Your task to perform on an android device: Add corsair k70 to the cart on amazon.com Image 0: 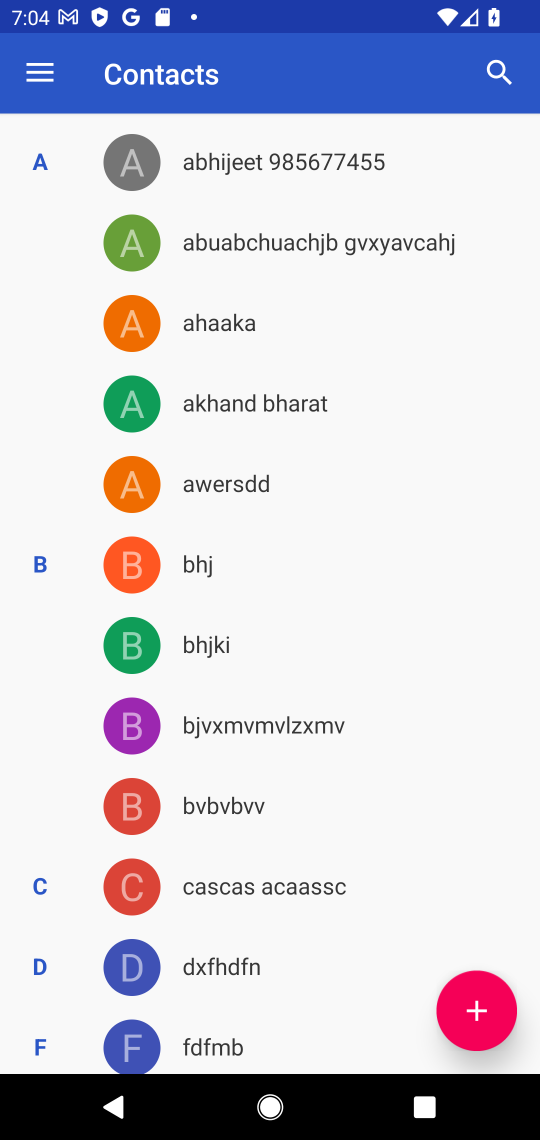
Step 0: press home button
Your task to perform on an android device: Add corsair k70 to the cart on amazon.com Image 1: 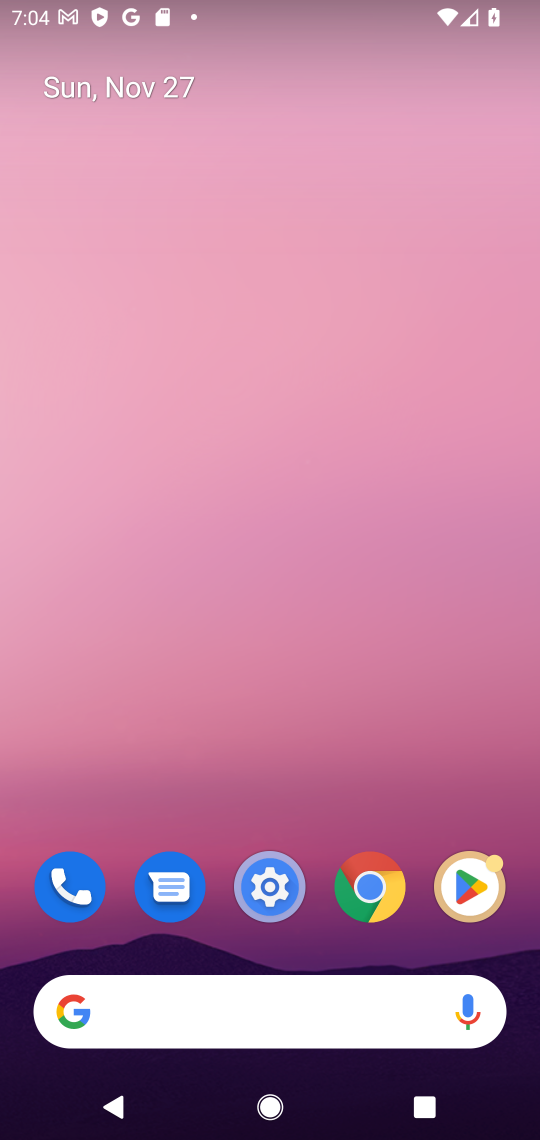
Step 1: click (340, 1018)
Your task to perform on an android device: Add corsair k70 to the cart on amazon.com Image 2: 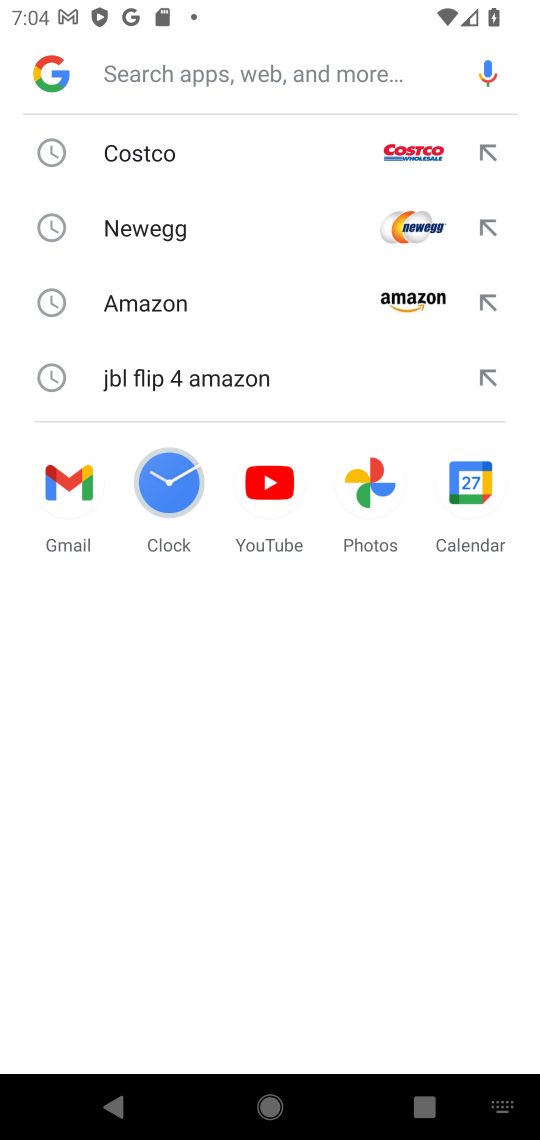
Step 2: click (272, 285)
Your task to perform on an android device: Add corsair k70 to the cart on amazon.com Image 3: 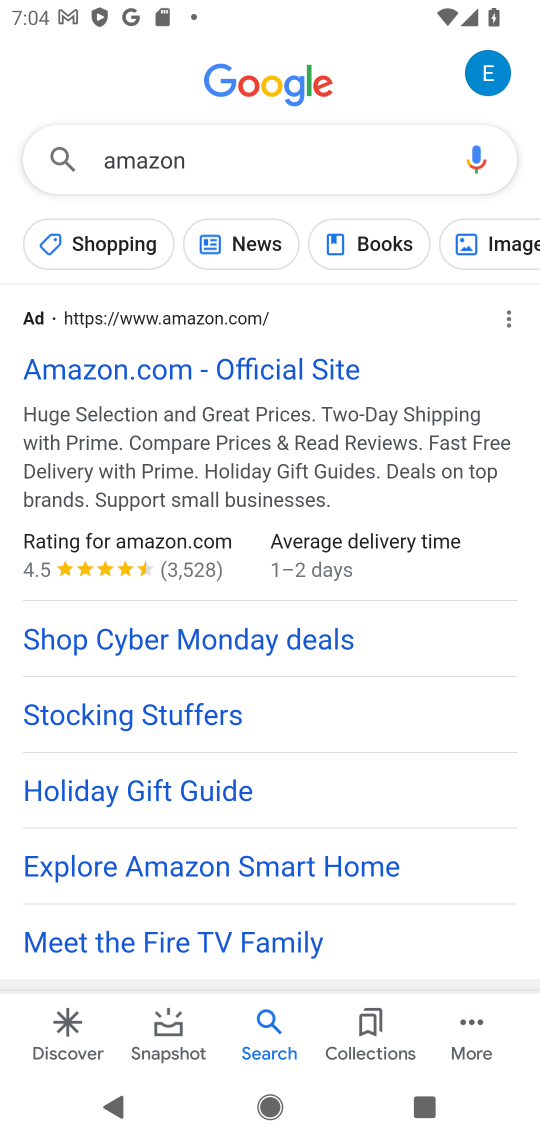
Step 3: click (260, 365)
Your task to perform on an android device: Add corsair k70 to the cart on amazon.com Image 4: 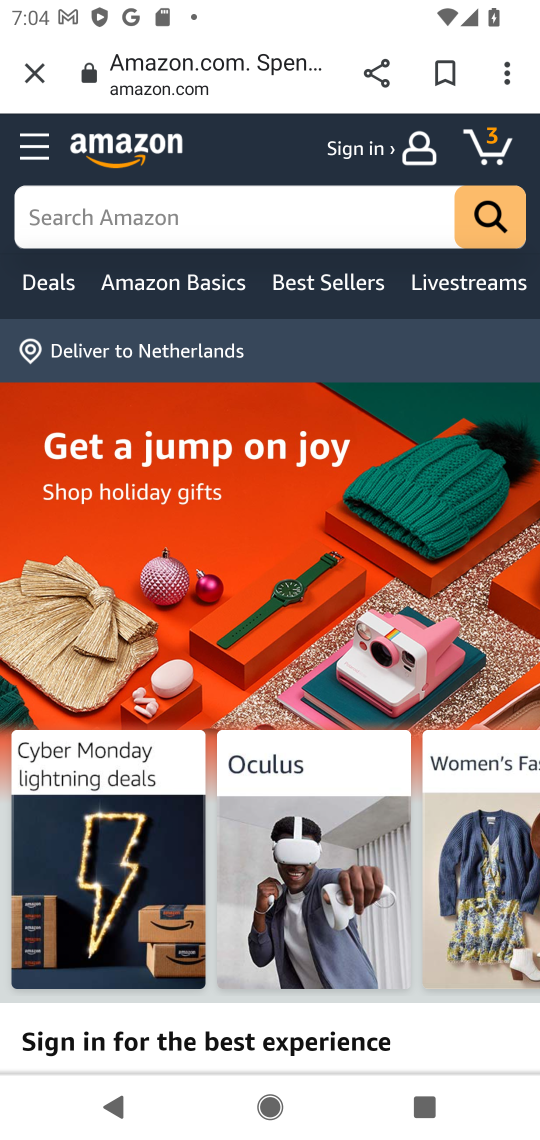
Step 4: click (198, 217)
Your task to perform on an android device: Add corsair k70 to the cart on amazon.com Image 5: 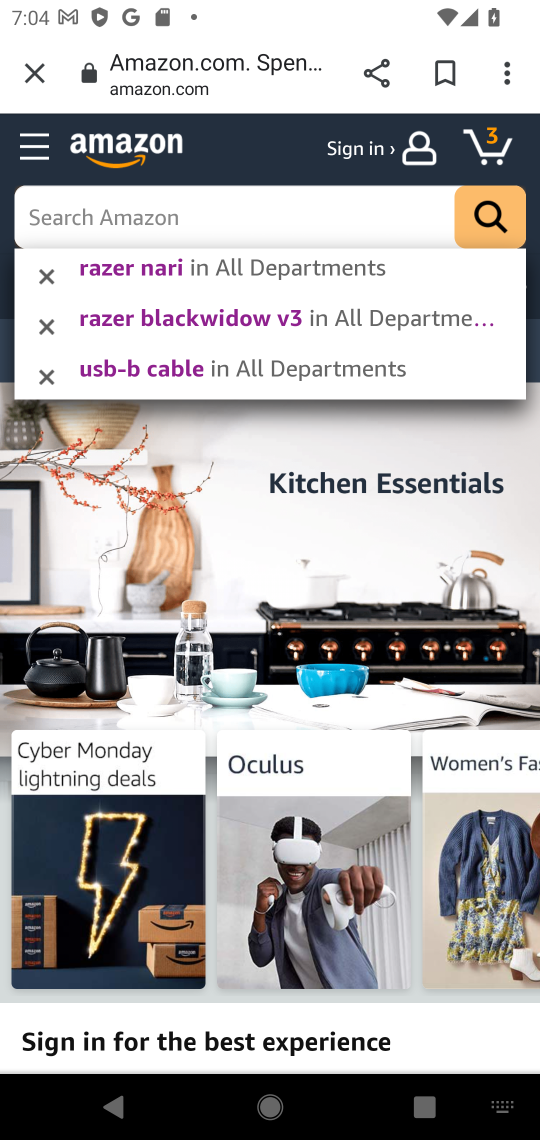
Step 5: type "cosair k70"
Your task to perform on an android device: Add corsair k70 to the cart on amazon.com Image 6: 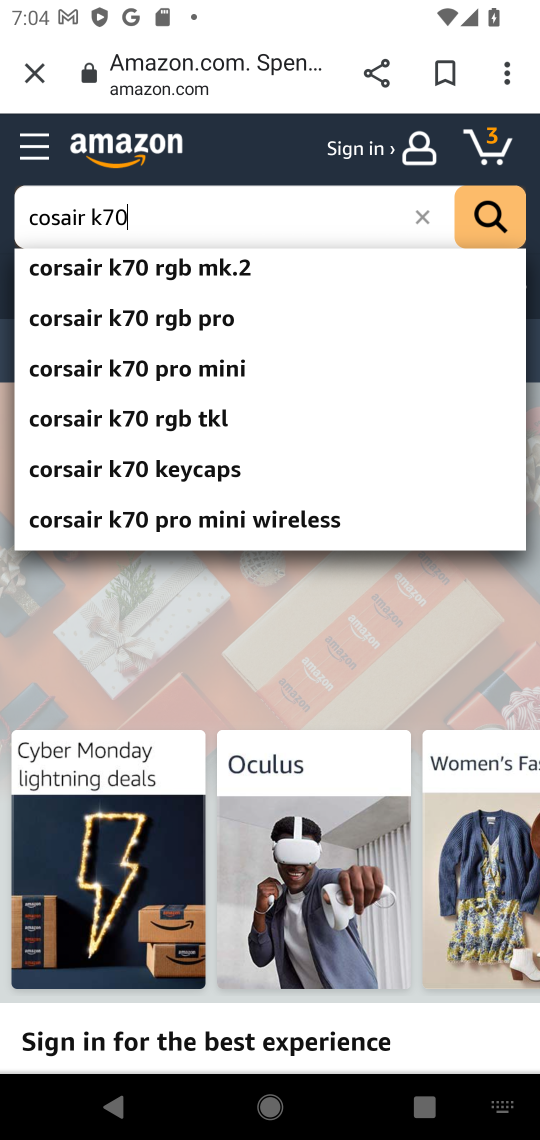
Step 6: click (510, 240)
Your task to perform on an android device: Add corsair k70 to the cart on amazon.com Image 7: 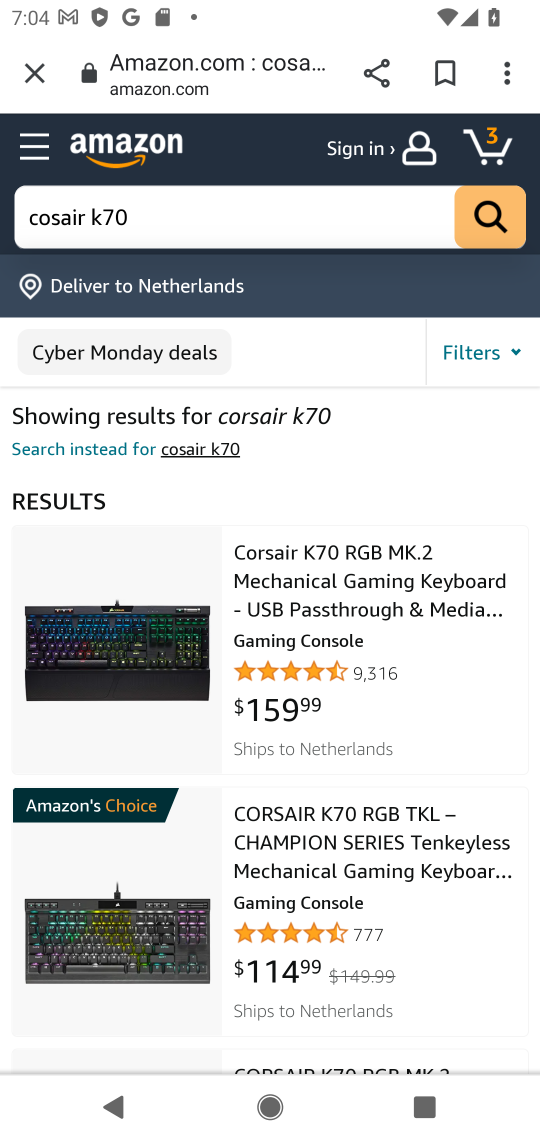
Step 7: click (368, 561)
Your task to perform on an android device: Add corsair k70 to the cart on amazon.com Image 8: 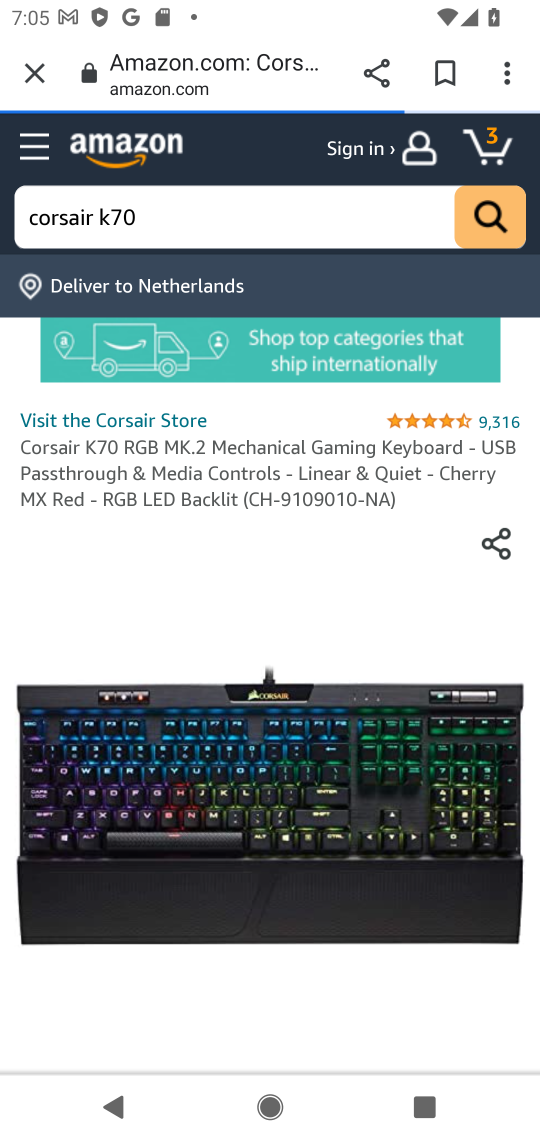
Step 8: drag from (160, 1009) to (170, 626)
Your task to perform on an android device: Add corsair k70 to the cart on amazon.com Image 9: 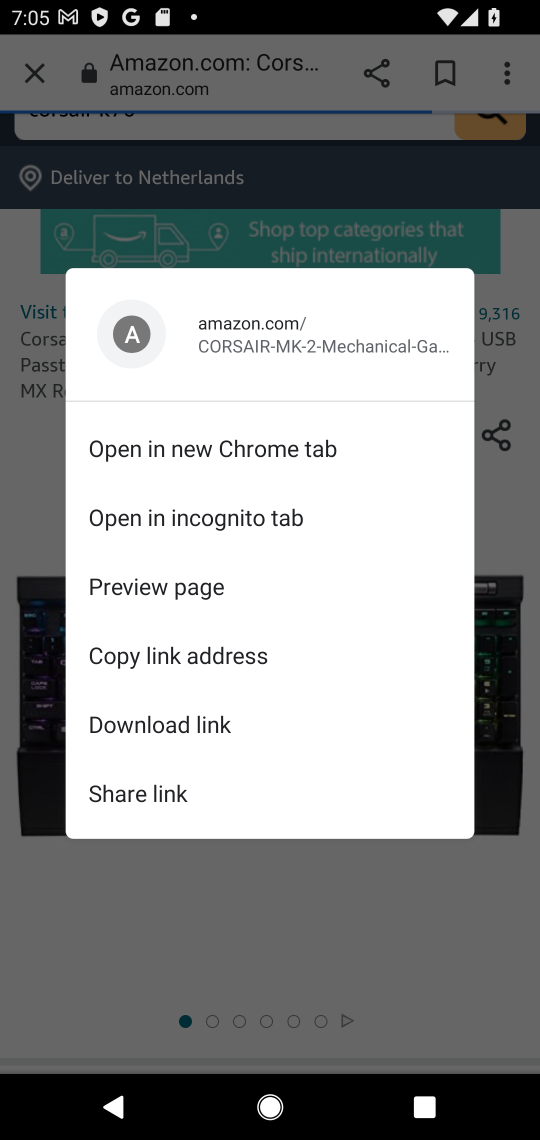
Step 9: click (272, 912)
Your task to perform on an android device: Add corsair k70 to the cart on amazon.com Image 10: 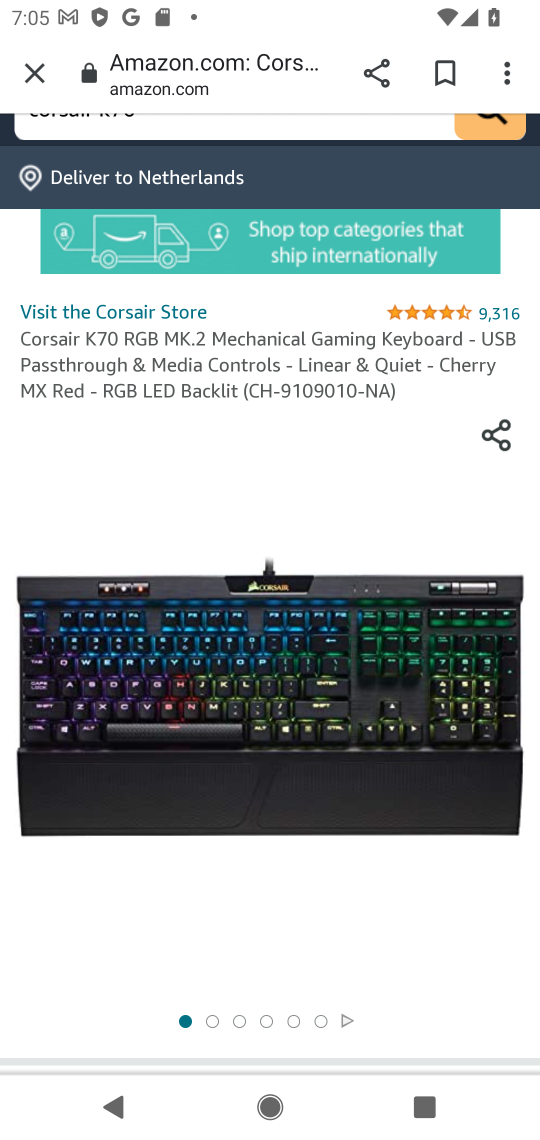
Step 10: drag from (272, 912) to (269, 346)
Your task to perform on an android device: Add corsair k70 to the cart on amazon.com Image 11: 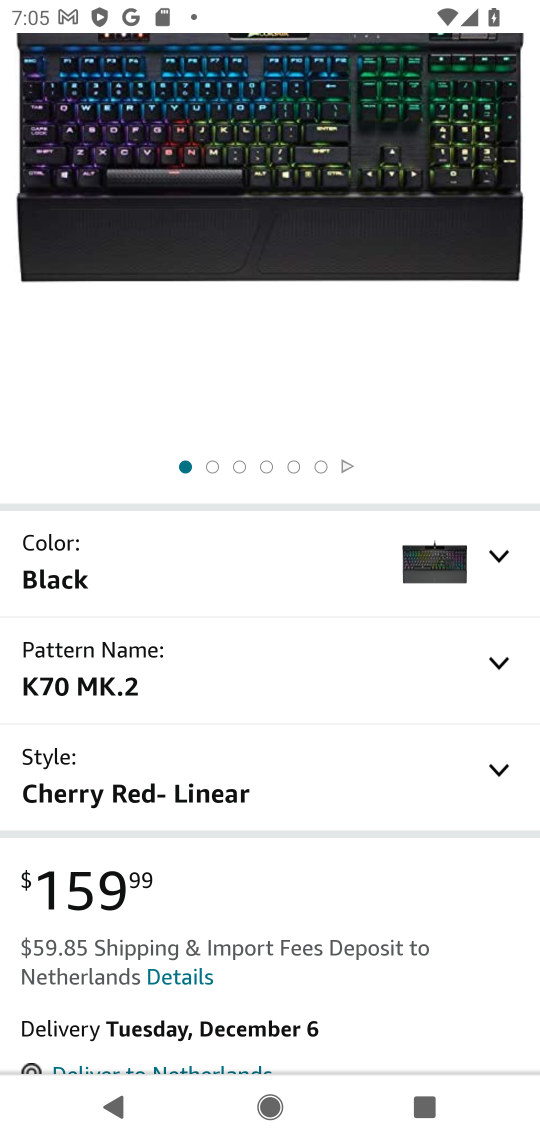
Step 11: drag from (401, 886) to (380, 533)
Your task to perform on an android device: Add corsair k70 to the cart on amazon.com Image 12: 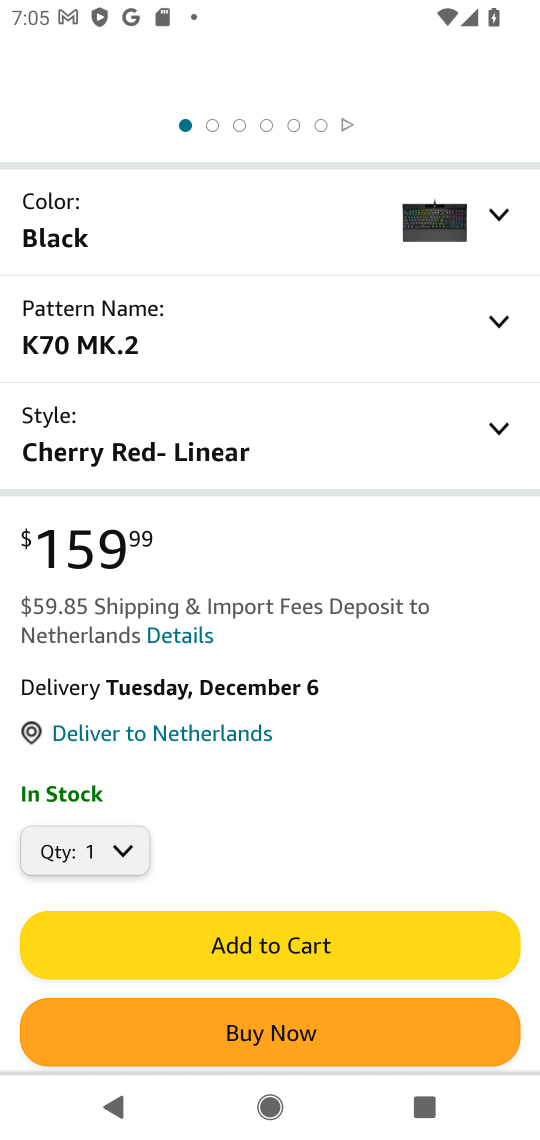
Step 12: click (385, 944)
Your task to perform on an android device: Add corsair k70 to the cart on amazon.com Image 13: 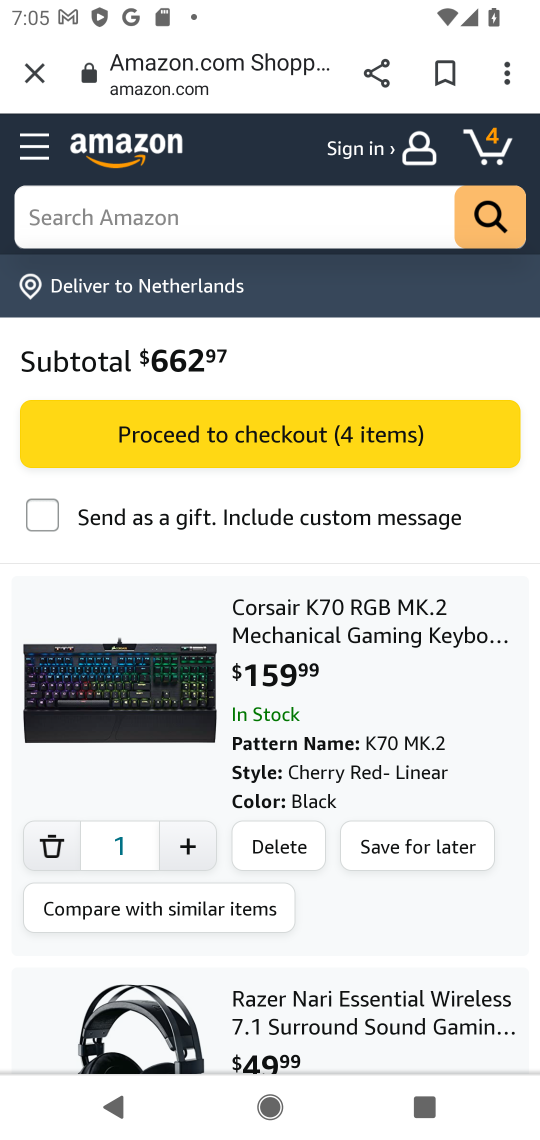
Step 13: task complete